Your task to perform on an android device: Go to calendar. Show me events next week Image 0: 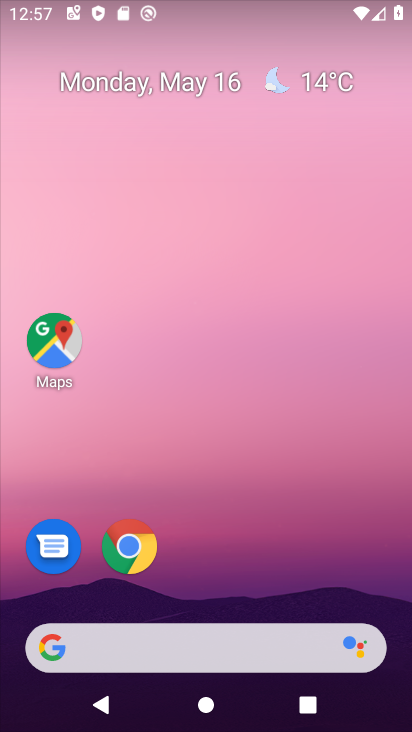
Step 0: drag from (296, 676) to (328, 261)
Your task to perform on an android device: Go to calendar. Show me events next week Image 1: 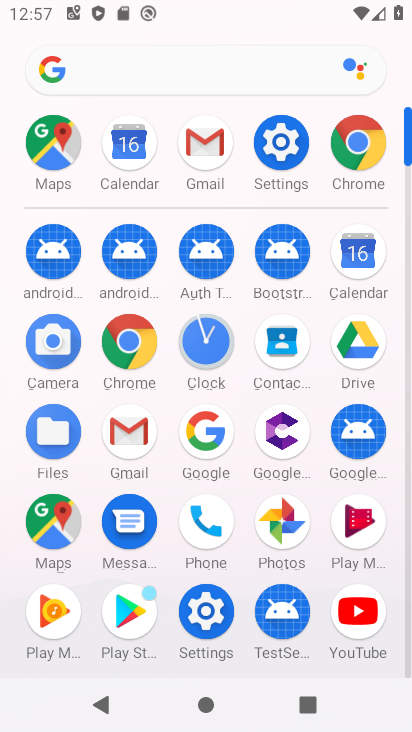
Step 1: click (359, 271)
Your task to perform on an android device: Go to calendar. Show me events next week Image 2: 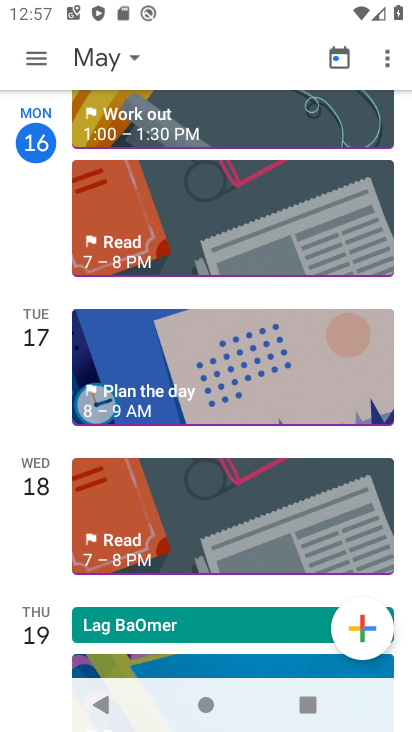
Step 2: click (39, 63)
Your task to perform on an android device: Go to calendar. Show me events next week Image 3: 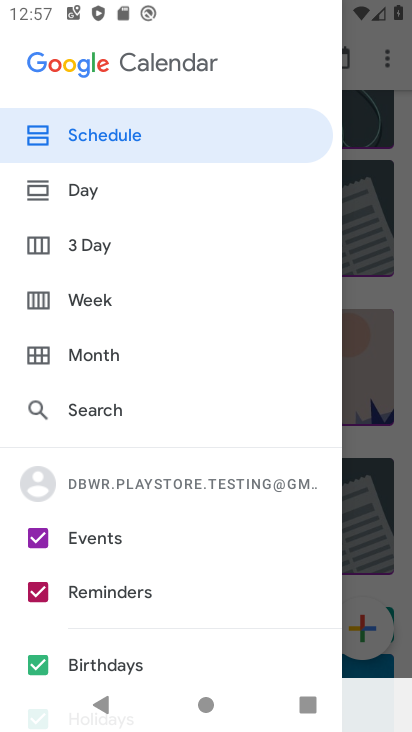
Step 3: click (59, 348)
Your task to perform on an android device: Go to calendar. Show me events next week Image 4: 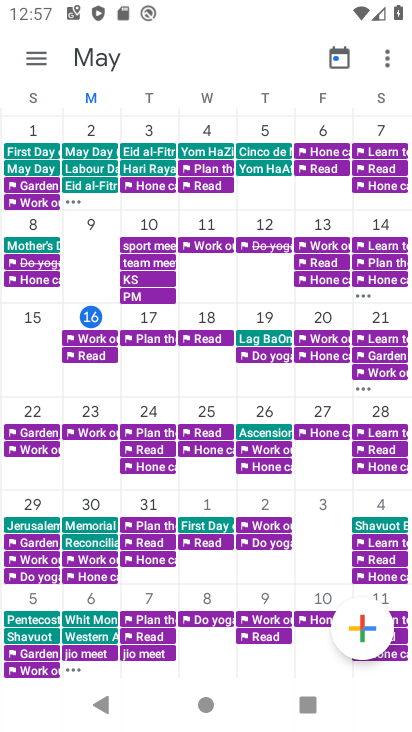
Step 4: click (93, 413)
Your task to perform on an android device: Go to calendar. Show me events next week Image 5: 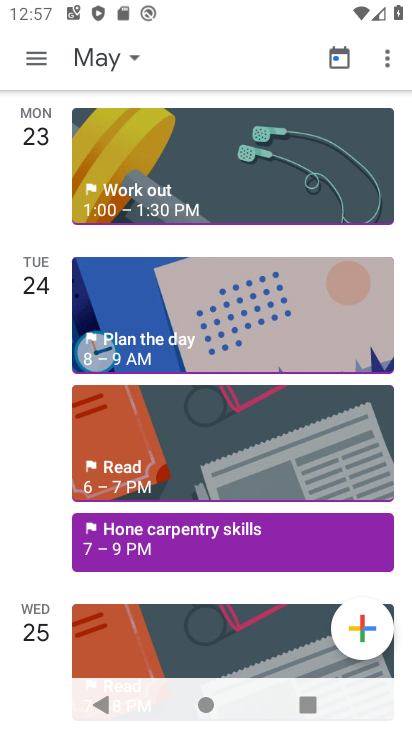
Step 5: task complete